Your task to perform on an android device: toggle show notifications on the lock screen Image 0: 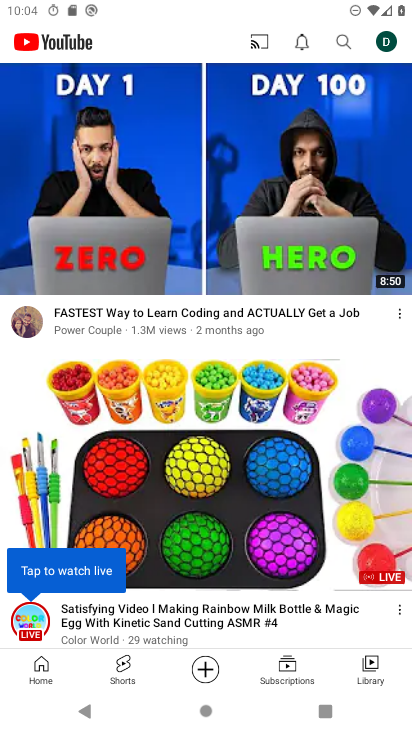
Step 0: press home button
Your task to perform on an android device: toggle show notifications on the lock screen Image 1: 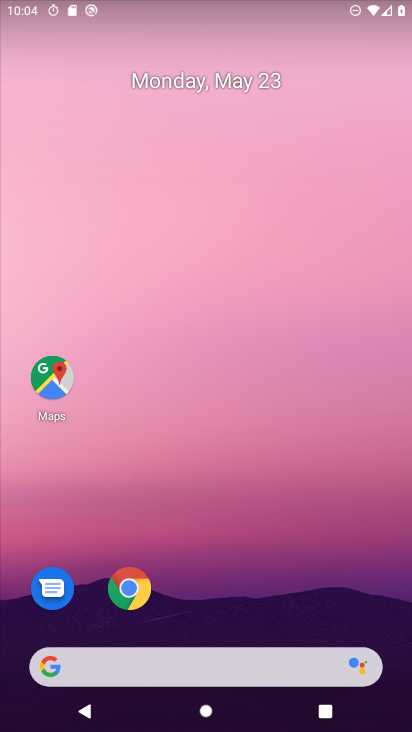
Step 1: drag from (398, 693) to (366, 138)
Your task to perform on an android device: toggle show notifications on the lock screen Image 2: 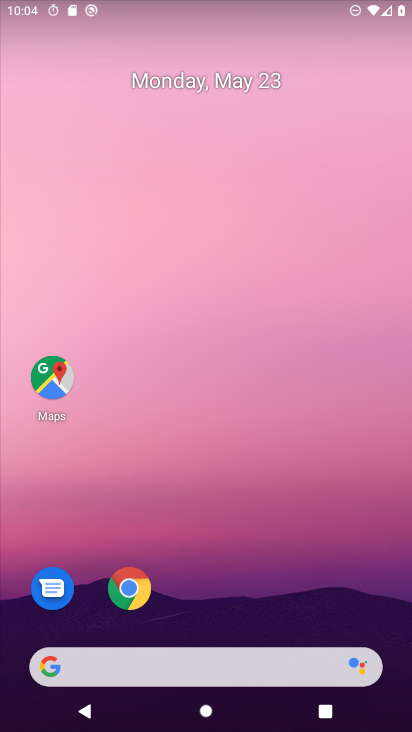
Step 2: drag from (395, 688) to (344, 121)
Your task to perform on an android device: toggle show notifications on the lock screen Image 3: 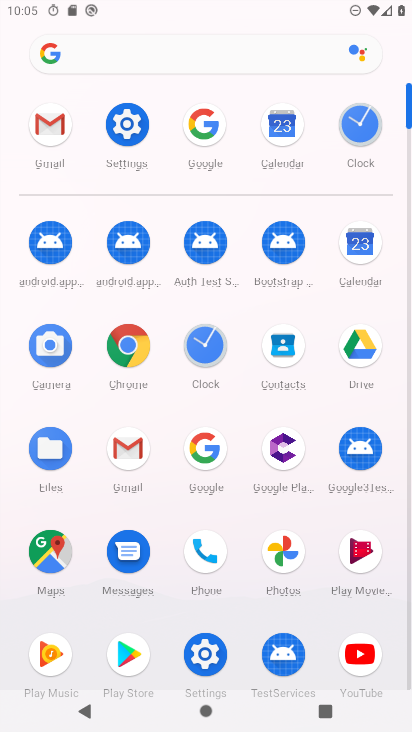
Step 3: click (134, 125)
Your task to perform on an android device: toggle show notifications on the lock screen Image 4: 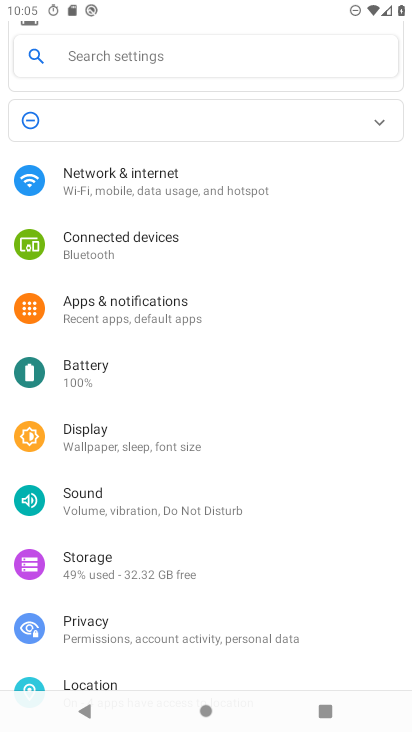
Step 4: click (135, 309)
Your task to perform on an android device: toggle show notifications on the lock screen Image 5: 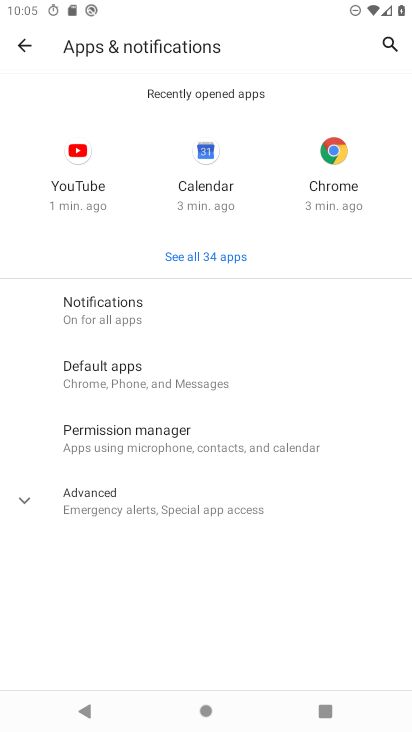
Step 5: click (104, 325)
Your task to perform on an android device: toggle show notifications on the lock screen Image 6: 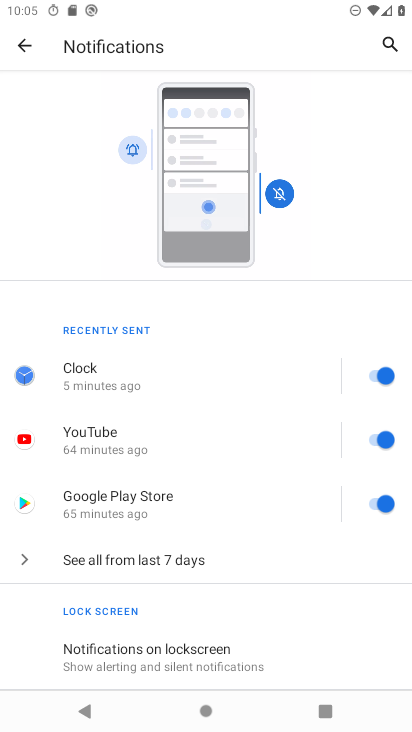
Step 6: drag from (273, 648) to (292, 235)
Your task to perform on an android device: toggle show notifications on the lock screen Image 7: 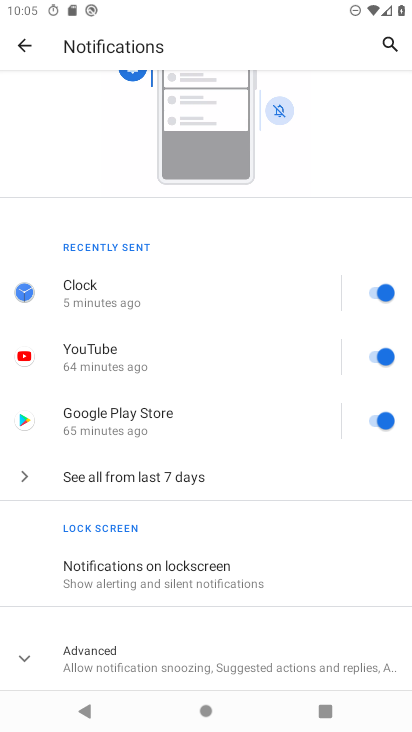
Step 7: click (141, 560)
Your task to perform on an android device: toggle show notifications on the lock screen Image 8: 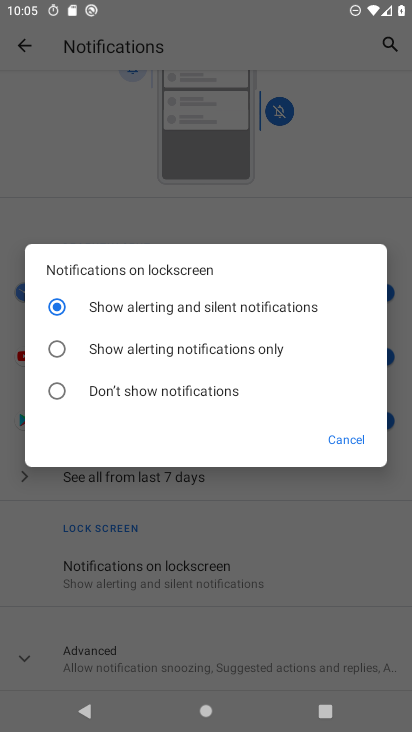
Step 8: click (61, 346)
Your task to perform on an android device: toggle show notifications on the lock screen Image 9: 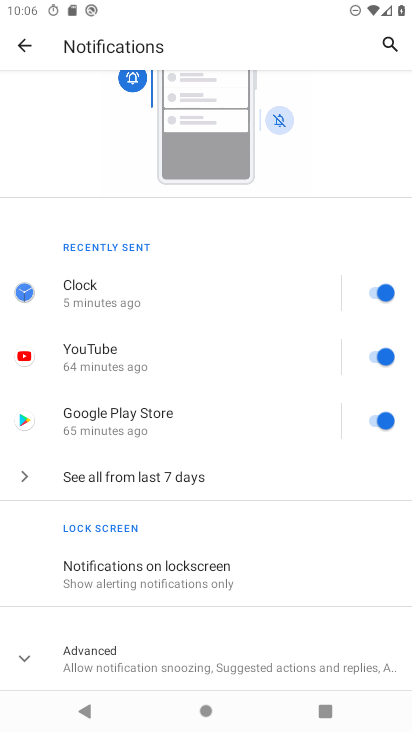
Step 9: click (158, 565)
Your task to perform on an android device: toggle show notifications on the lock screen Image 10: 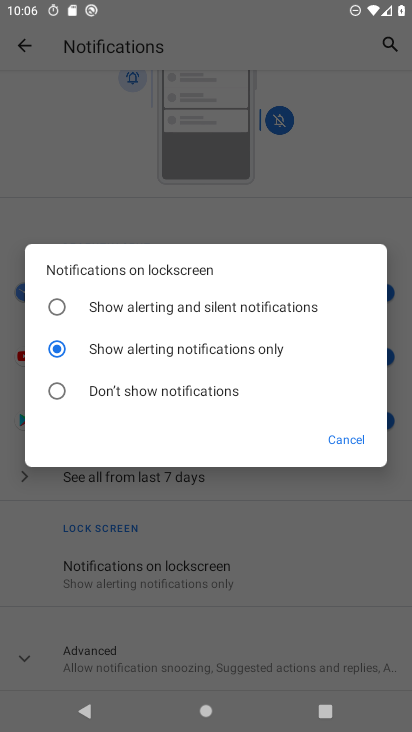
Step 10: task complete